Your task to perform on an android device: toggle sleep mode Image 0: 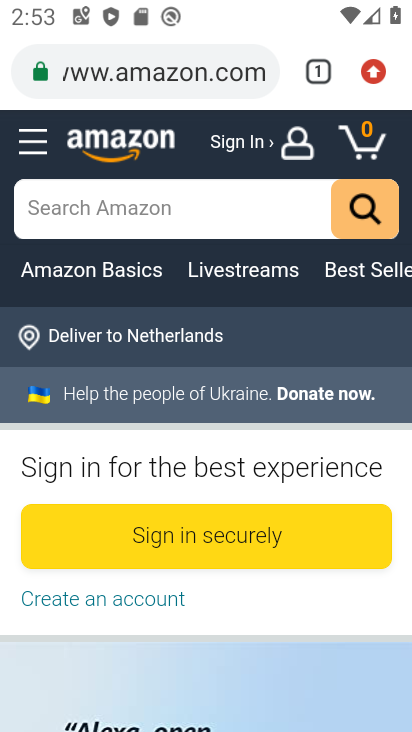
Step 0: press home button
Your task to perform on an android device: toggle sleep mode Image 1: 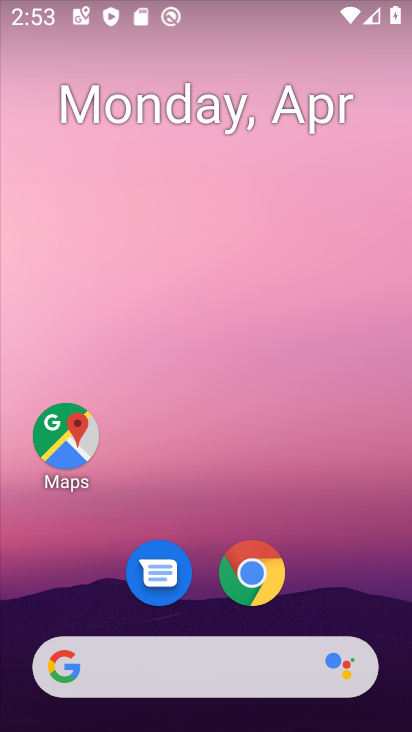
Step 1: drag from (361, 599) to (380, 154)
Your task to perform on an android device: toggle sleep mode Image 2: 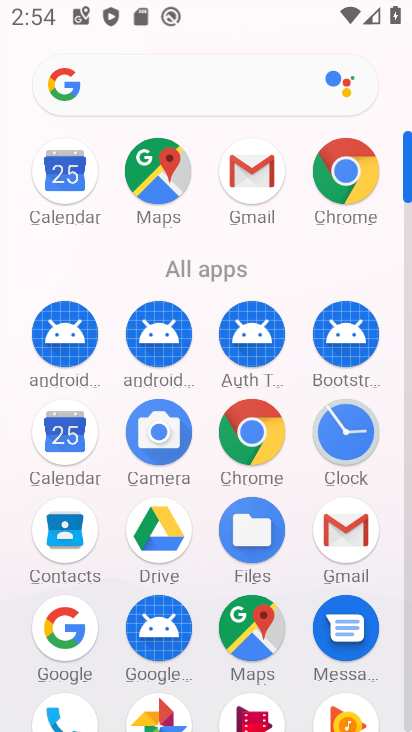
Step 2: drag from (392, 493) to (391, 173)
Your task to perform on an android device: toggle sleep mode Image 3: 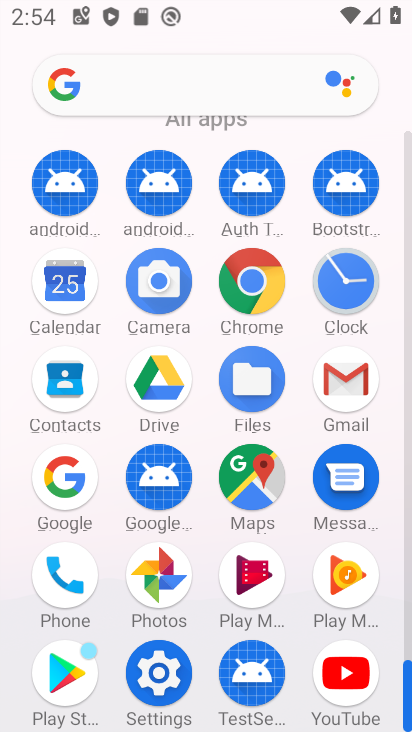
Step 3: click (159, 682)
Your task to perform on an android device: toggle sleep mode Image 4: 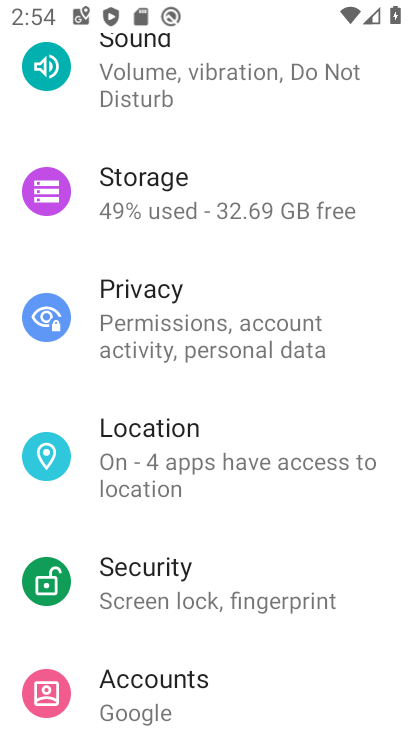
Step 4: drag from (371, 371) to (369, 564)
Your task to perform on an android device: toggle sleep mode Image 5: 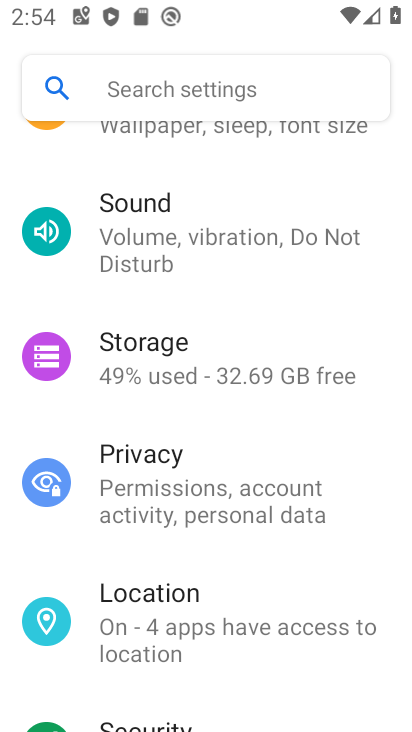
Step 5: drag from (380, 359) to (373, 538)
Your task to perform on an android device: toggle sleep mode Image 6: 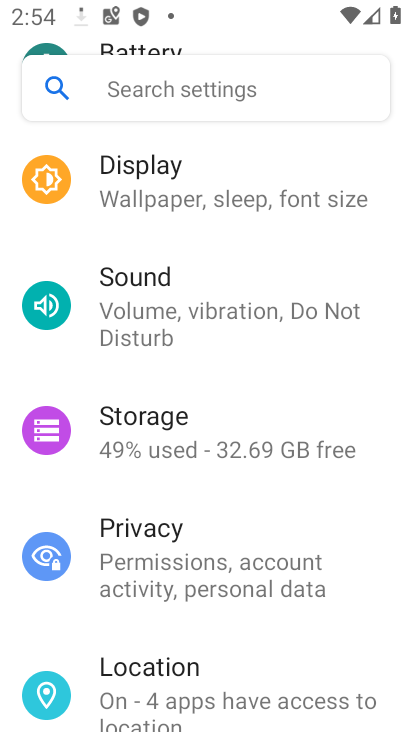
Step 6: drag from (382, 291) to (380, 488)
Your task to perform on an android device: toggle sleep mode Image 7: 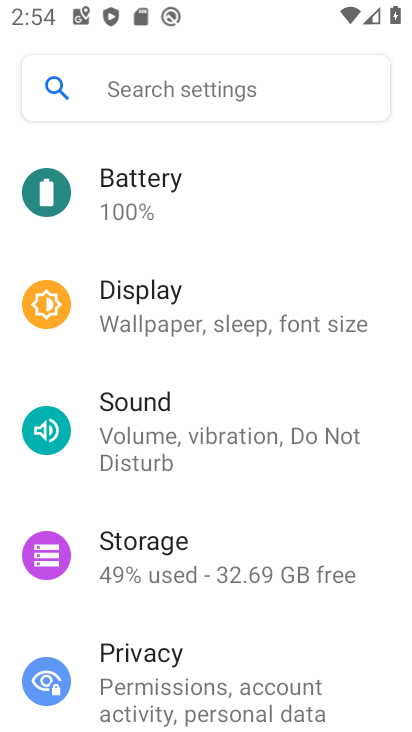
Step 7: drag from (373, 258) to (382, 453)
Your task to perform on an android device: toggle sleep mode Image 8: 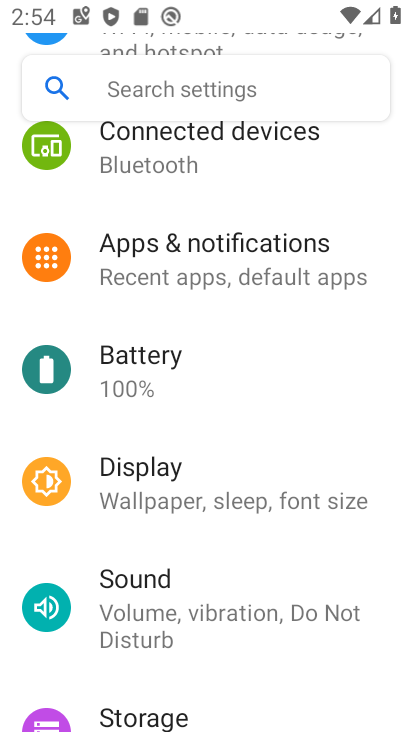
Step 8: click (171, 492)
Your task to perform on an android device: toggle sleep mode Image 9: 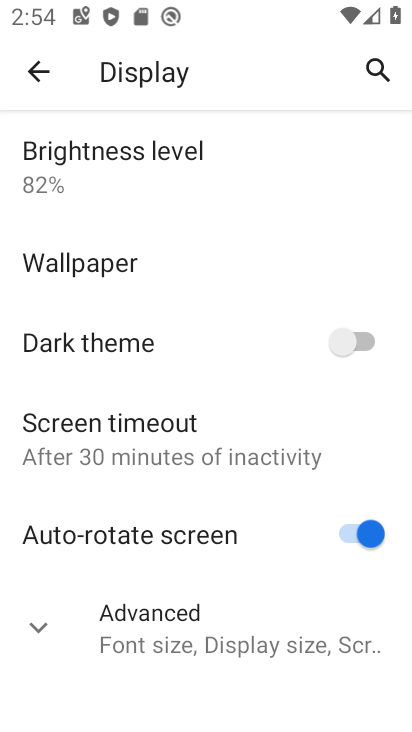
Step 9: click (188, 624)
Your task to perform on an android device: toggle sleep mode Image 10: 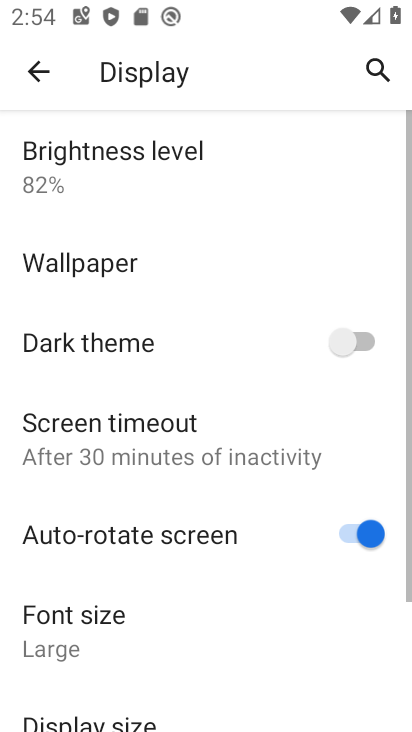
Step 10: task complete